Your task to perform on an android device: Do I have any events this weekend? Image 0: 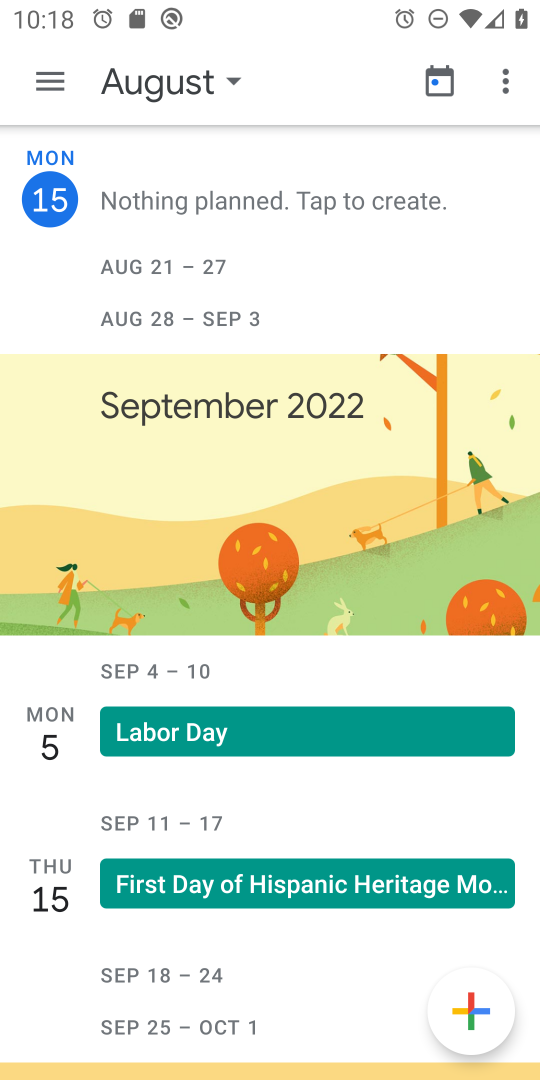
Step 0: click (53, 63)
Your task to perform on an android device: Do I have any events this weekend? Image 1: 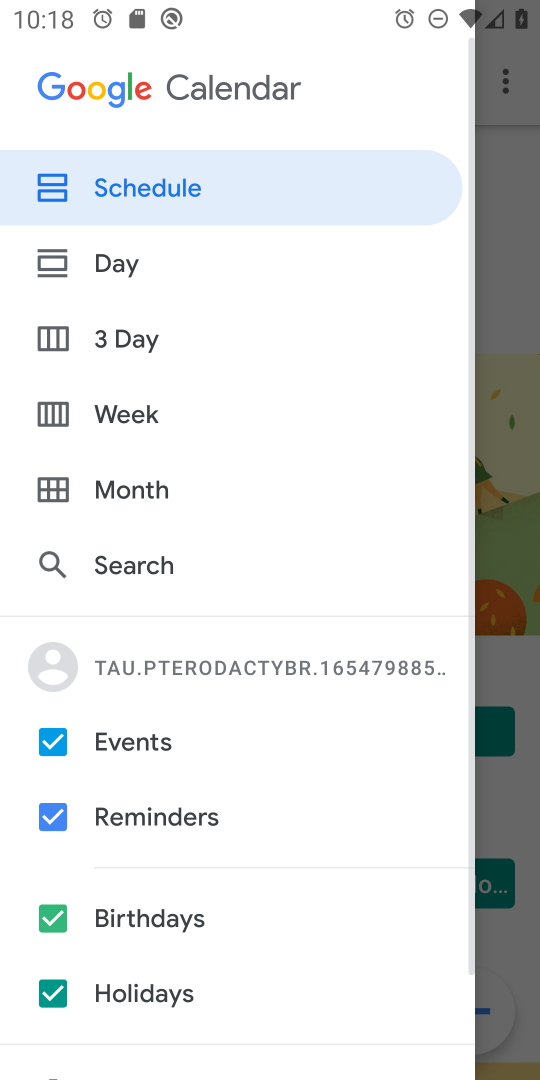
Step 1: click (46, 399)
Your task to perform on an android device: Do I have any events this weekend? Image 2: 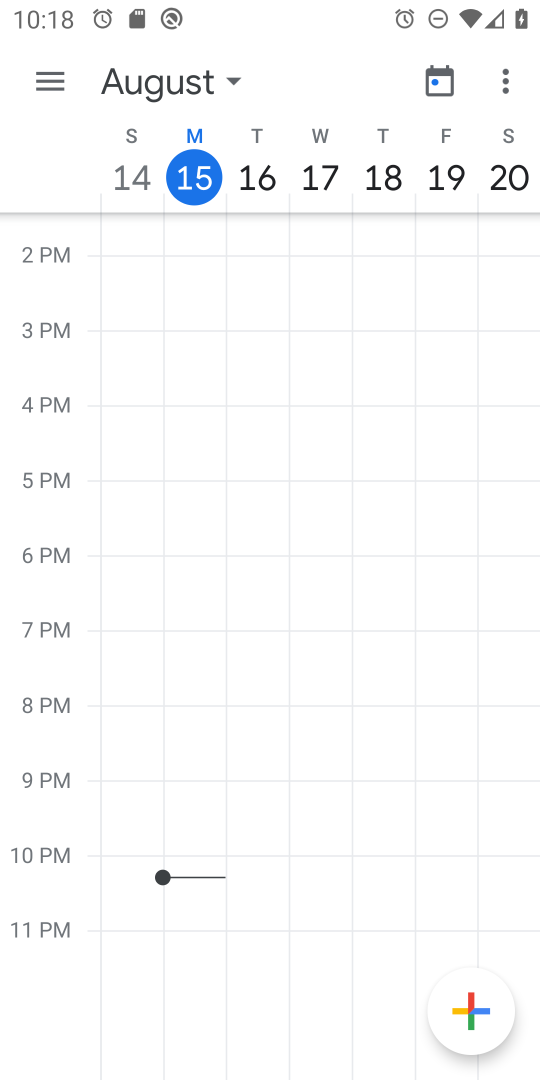
Step 2: click (503, 163)
Your task to perform on an android device: Do I have any events this weekend? Image 3: 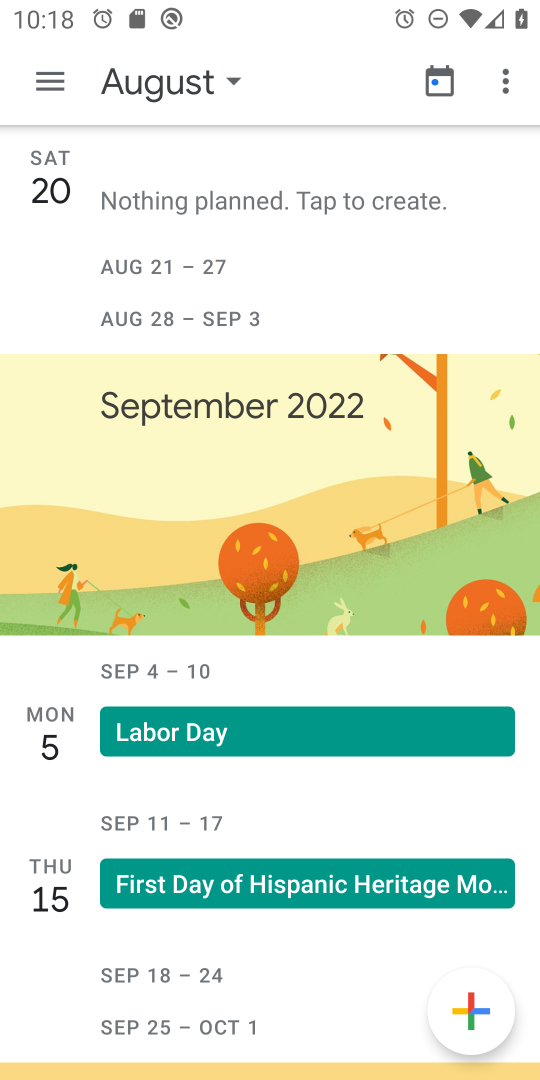
Step 3: task complete